Your task to perform on an android device: Go to Maps Image 0: 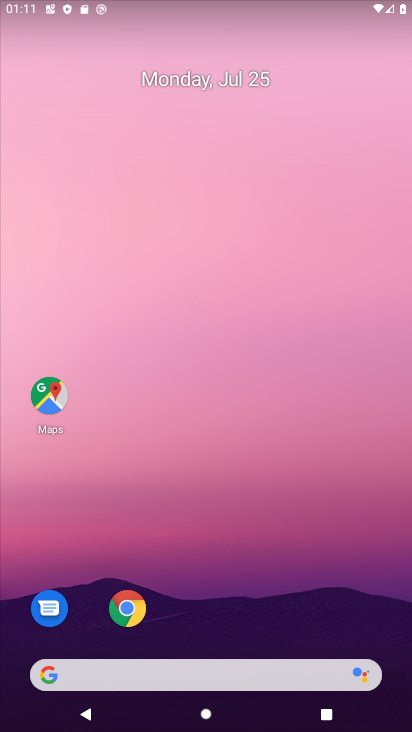
Step 0: drag from (203, 605) to (165, 114)
Your task to perform on an android device: Go to Maps Image 1: 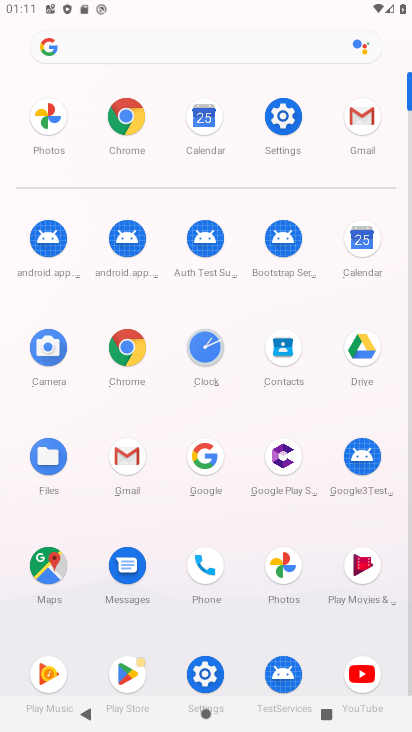
Step 1: click (50, 570)
Your task to perform on an android device: Go to Maps Image 2: 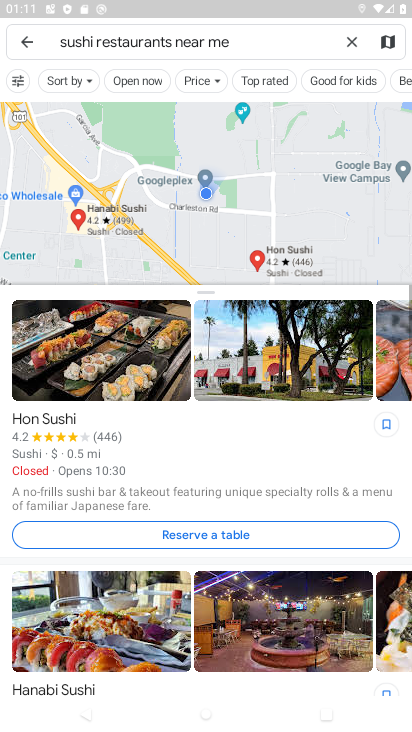
Step 2: click (33, 42)
Your task to perform on an android device: Go to Maps Image 3: 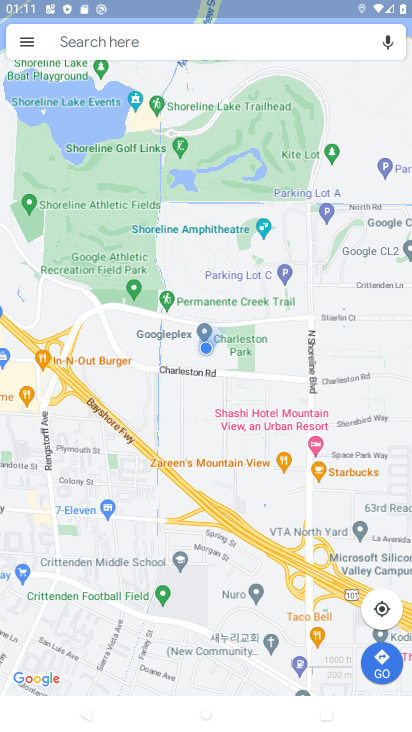
Step 3: task complete